Your task to perform on an android device: Open settings Image 0: 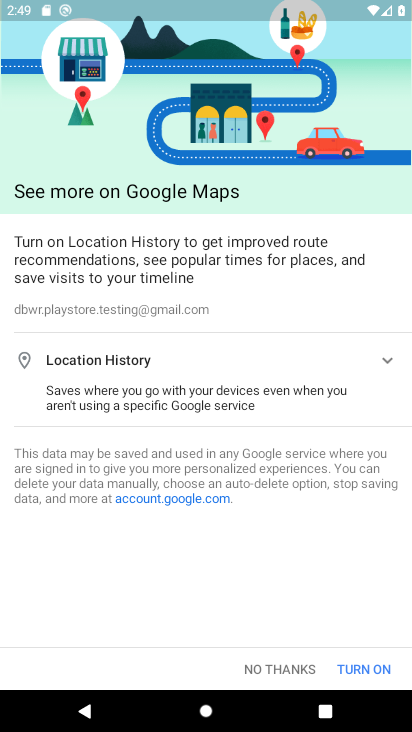
Step 0: press home button
Your task to perform on an android device: Open settings Image 1: 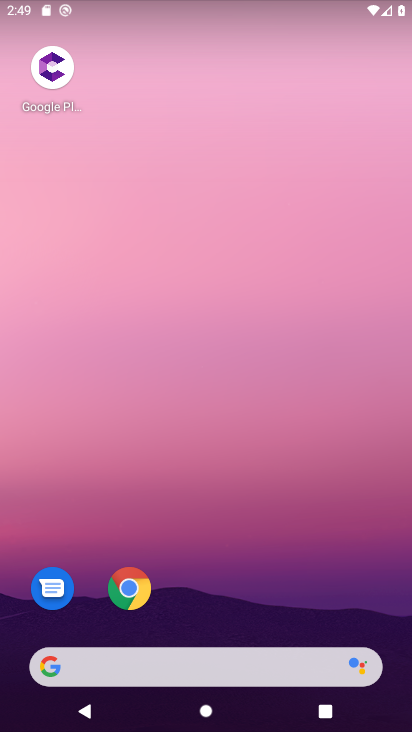
Step 1: drag from (314, 534) to (188, 0)
Your task to perform on an android device: Open settings Image 2: 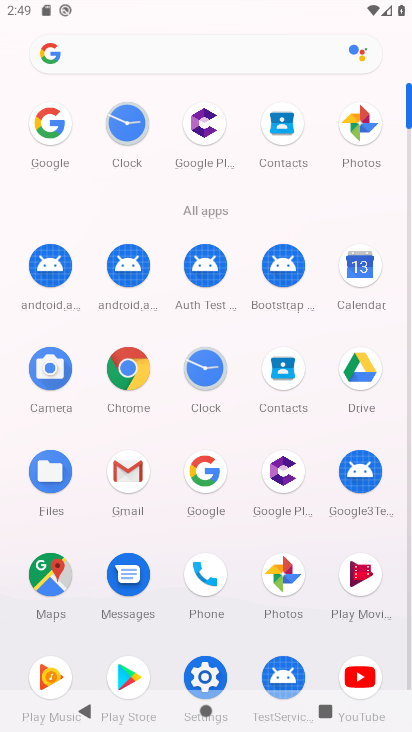
Step 2: drag from (204, 211) to (104, 5)
Your task to perform on an android device: Open settings Image 3: 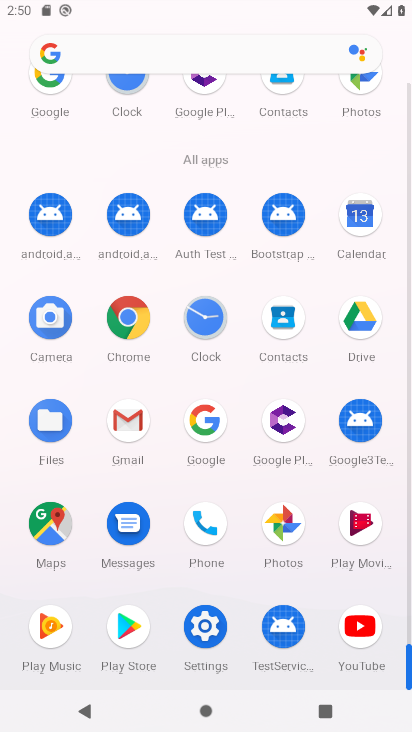
Step 3: click (214, 632)
Your task to perform on an android device: Open settings Image 4: 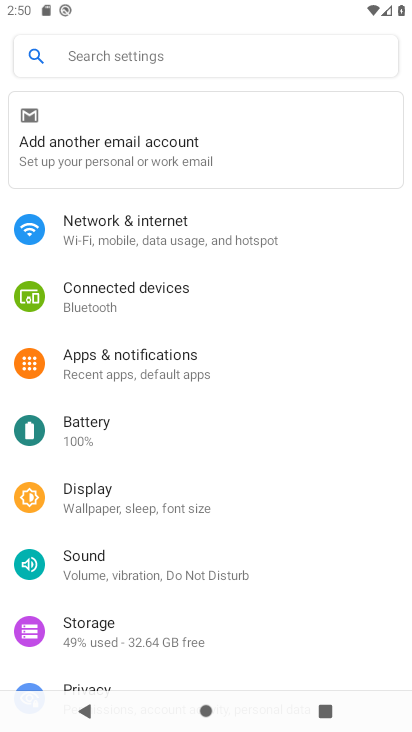
Step 4: task complete